Your task to perform on an android device: toggle sleep mode Image 0: 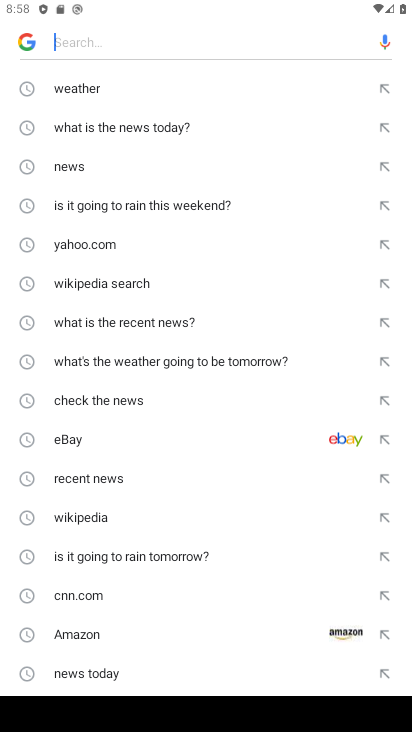
Step 0: press home button
Your task to perform on an android device: toggle sleep mode Image 1: 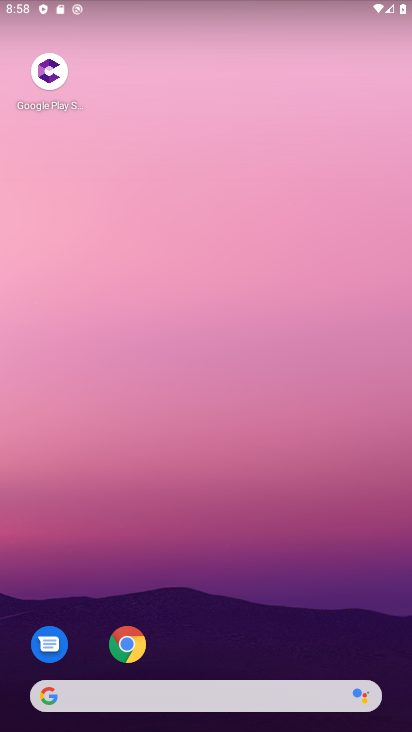
Step 1: drag from (208, 690) to (303, 118)
Your task to perform on an android device: toggle sleep mode Image 2: 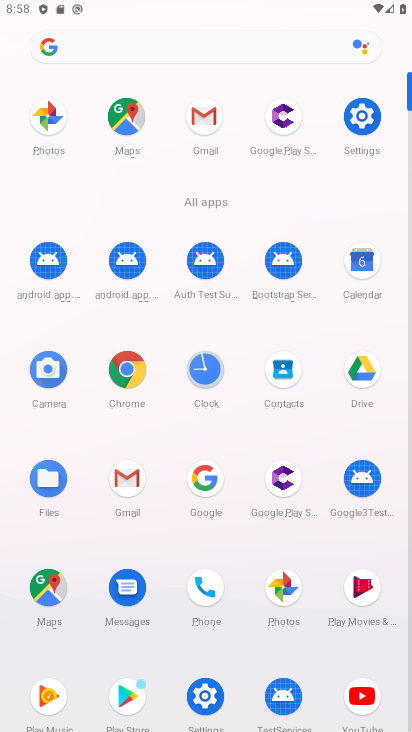
Step 2: click (210, 687)
Your task to perform on an android device: toggle sleep mode Image 3: 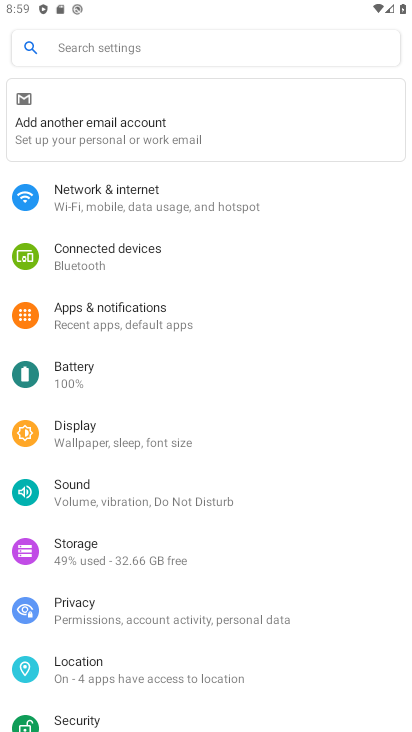
Step 3: click (164, 435)
Your task to perform on an android device: toggle sleep mode Image 4: 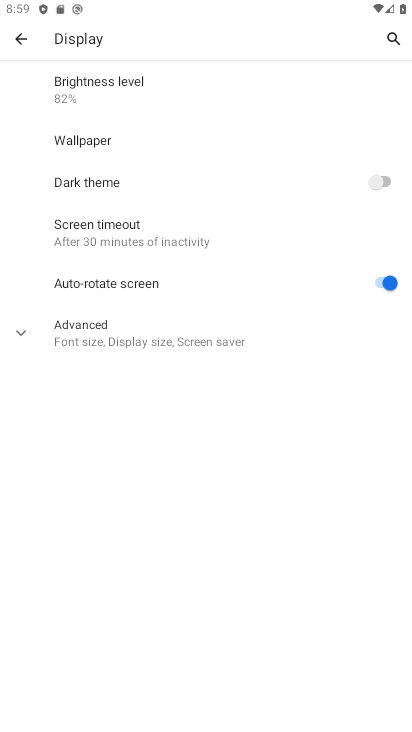
Step 4: click (202, 334)
Your task to perform on an android device: toggle sleep mode Image 5: 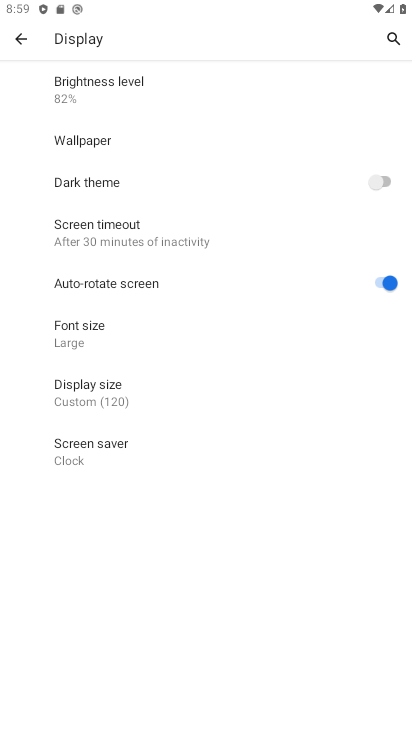
Step 5: task complete